Your task to perform on an android device: Open settings on Google Maps Image 0: 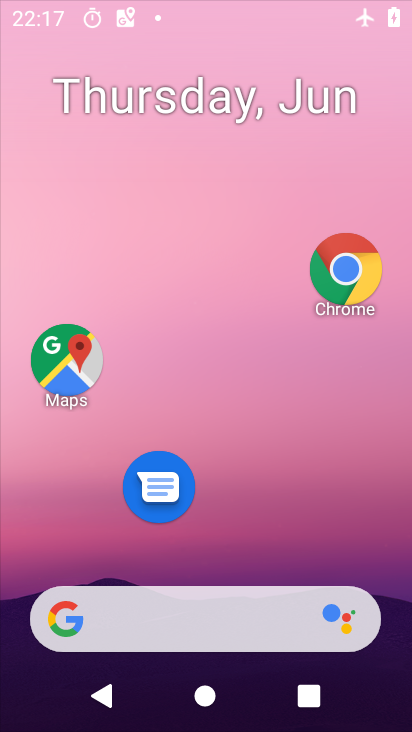
Step 0: click (198, 33)
Your task to perform on an android device: Open settings on Google Maps Image 1: 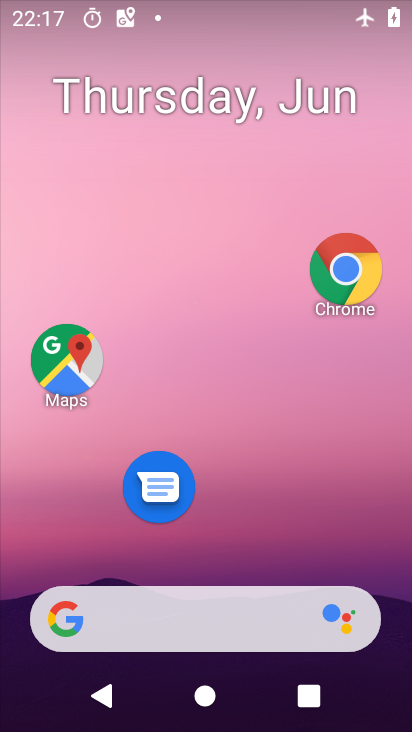
Step 1: drag from (216, 539) to (310, 7)
Your task to perform on an android device: Open settings on Google Maps Image 2: 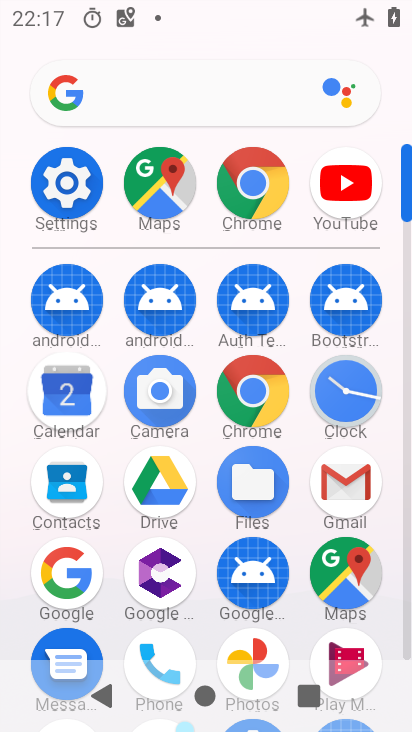
Step 2: click (351, 556)
Your task to perform on an android device: Open settings on Google Maps Image 3: 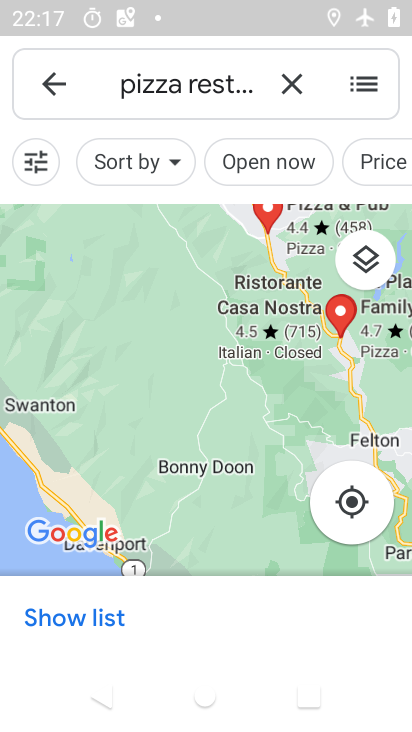
Step 3: click (47, 72)
Your task to perform on an android device: Open settings on Google Maps Image 4: 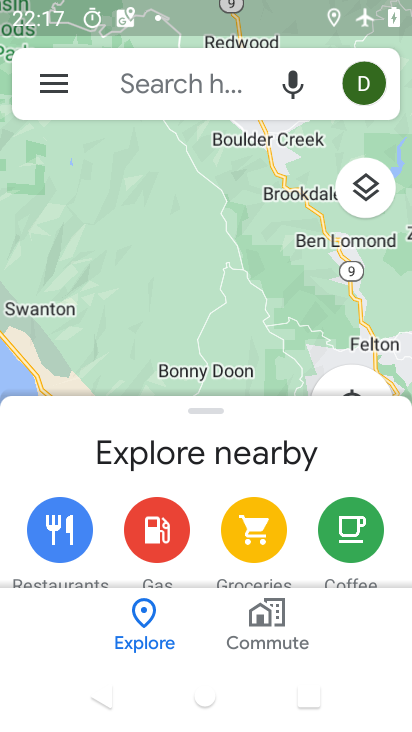
Step 4: click (45, 74)
Your task to perform on an android device: Open settings on Google Maps Image 5: 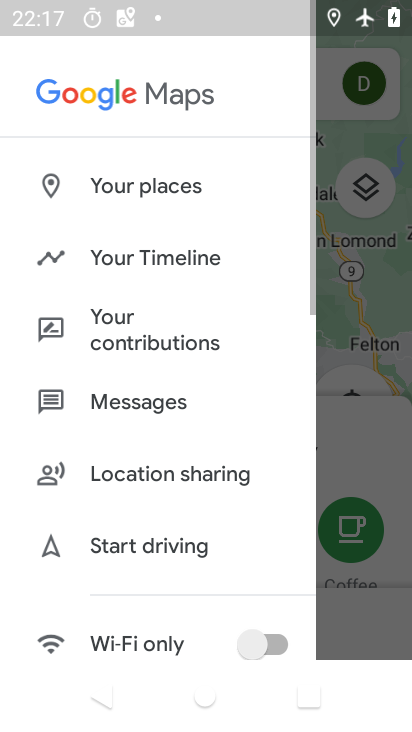
Step 5: drag from (150, 579) to (292, 11)
Your task to perform on an android device: Open settings on Google Maps Image 6: 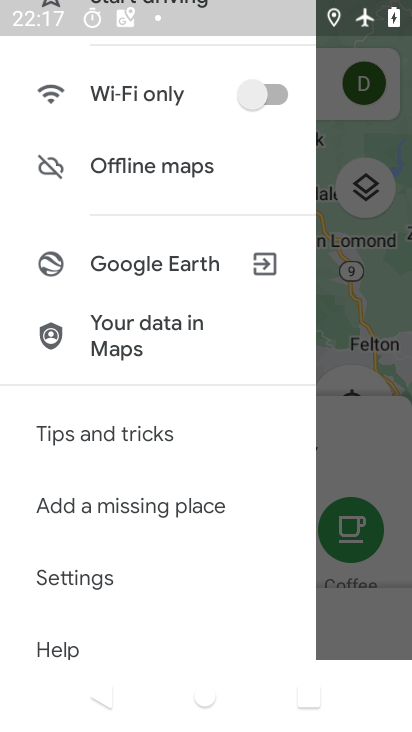
Step 6: click (107, 565)
Your task to perform on an android device: Open settings on Google Maps Image 7: 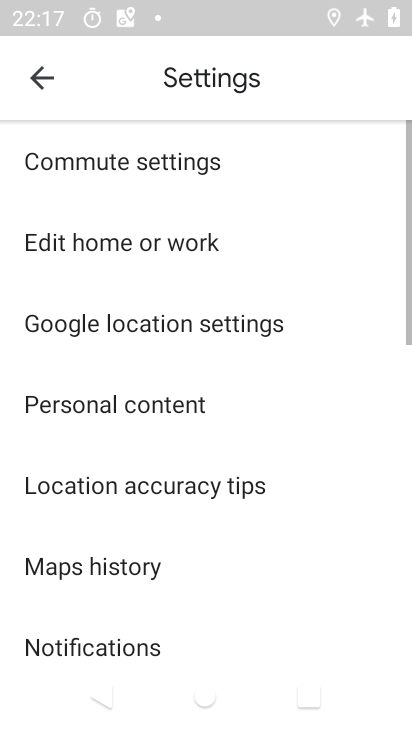
Step 7: task complete